Your task to perform on an android device: turn on priority inbox in the gmail app Image 0: 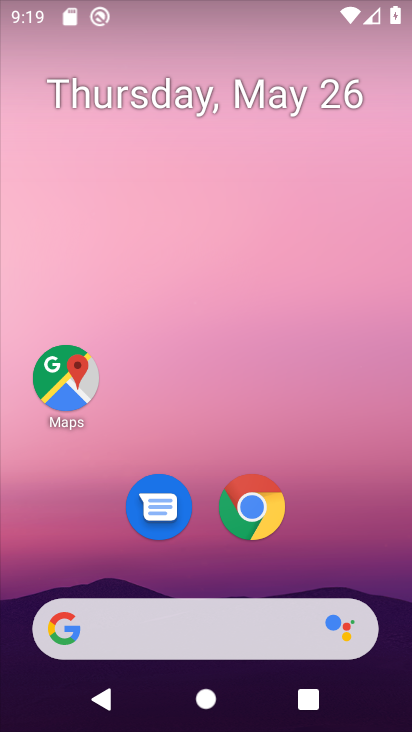
Step 0: drag from (375, 573) to (366, 278)
Your task to perform on an android device: turn on priority inbox in the gmail app Image 1: 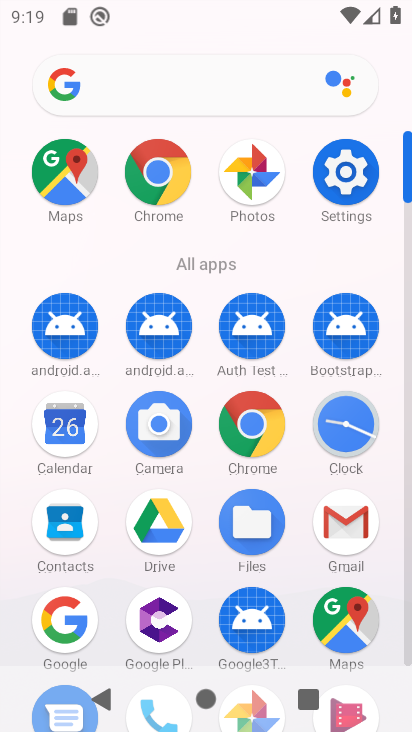
Step 1: click (346, 525)
Your task to perform on an android device: turn on priority inbox in the gmail app Image 2: 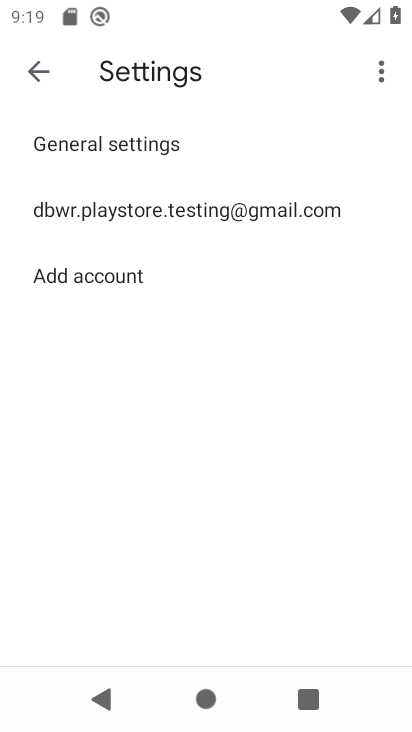
Step 2: click (35, 83)
Your task to perform on an android device: turn on priority inbox in the gmail app Image 3: 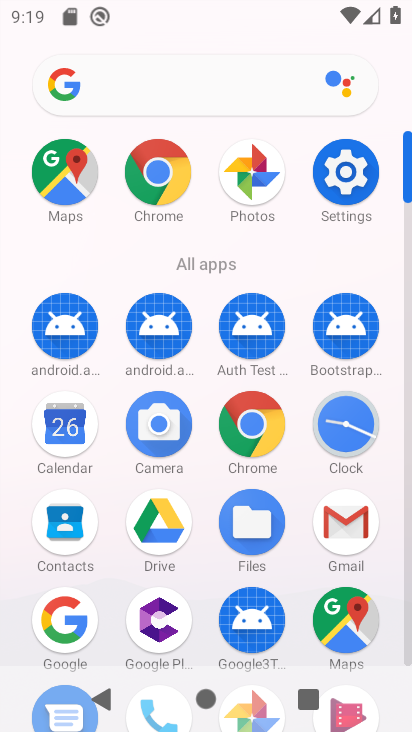
Step 3: click (363, 532)
Your task to perform on an android device: turn on priority inbox in the gmail app Image 4: 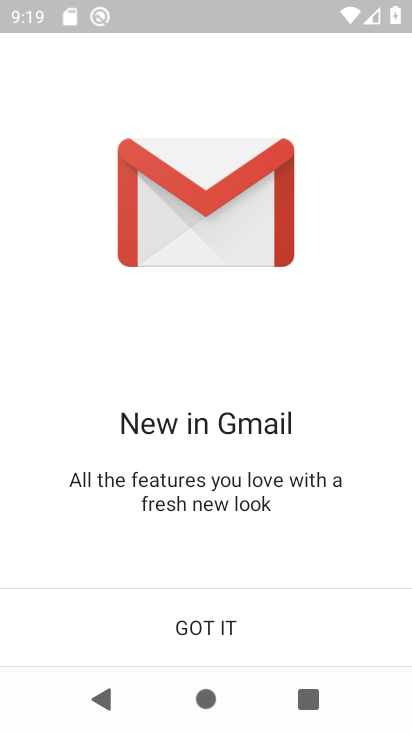
Step 4: click (343, 635)
Your task to perform on an android device: turn on priority inbox in the gmail app Image 5: 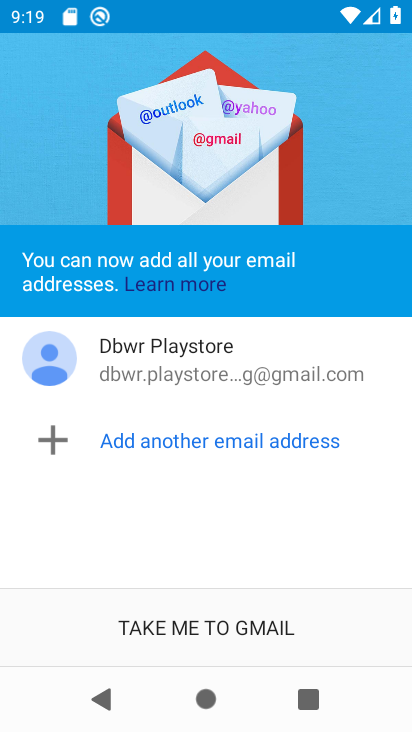
Step 5: click (334, 638)
Your task to perform on an android device: turn on priority inbox in the gmail app Image 6: 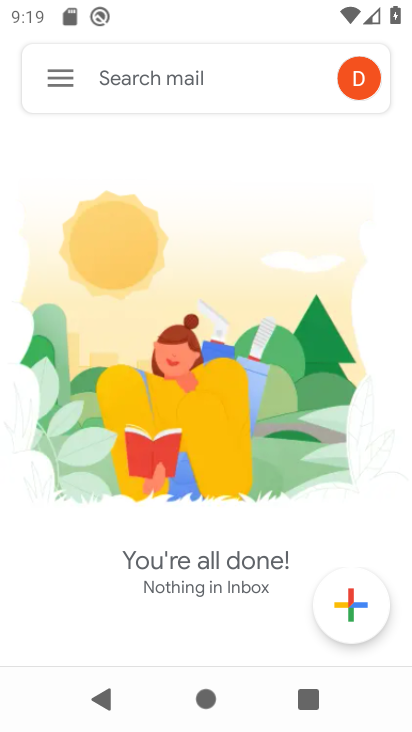
Step 6: click (67, 83)
Your task to perform on an android device: turn on priority inbox in the gmail app Image 7: 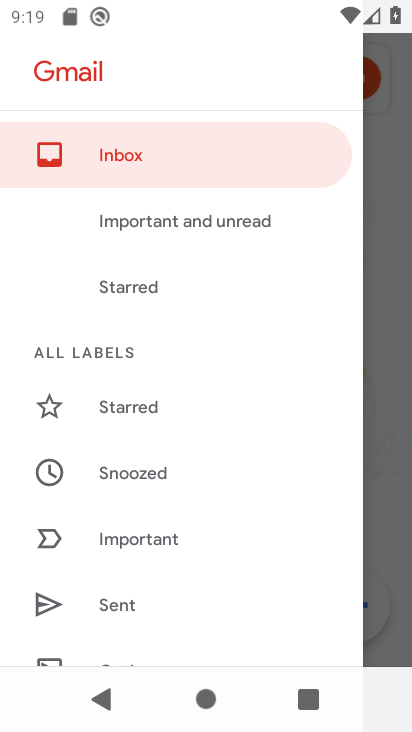
Step 7: drag from (211, 398) to (233, 277)
Your task to perform on an android device: turn on priority inbox in the gmail app Image 8: 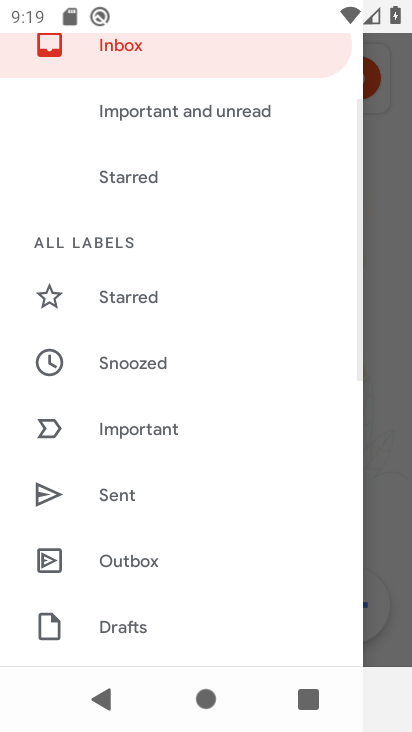
Step 8: drag from (275, 397) to (272, 254)
Your task to perform on an android device: turn on priority inbox in the gmail app Image 9: 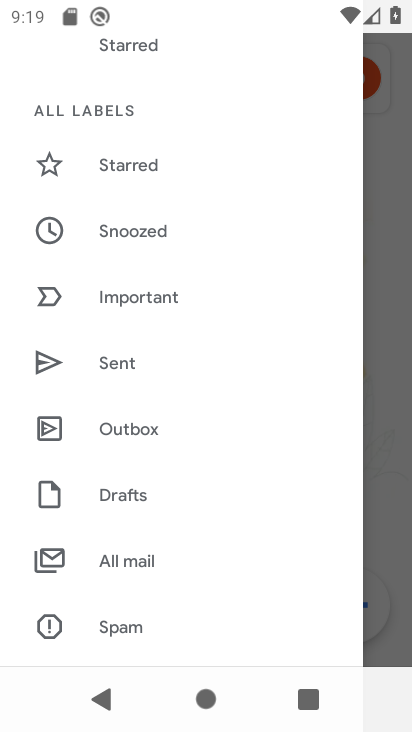
Step 9: drag from (279, 399) to (292, 273)
Your task to perform on an android device: turn on priority inbox in the gmail app Image 10: 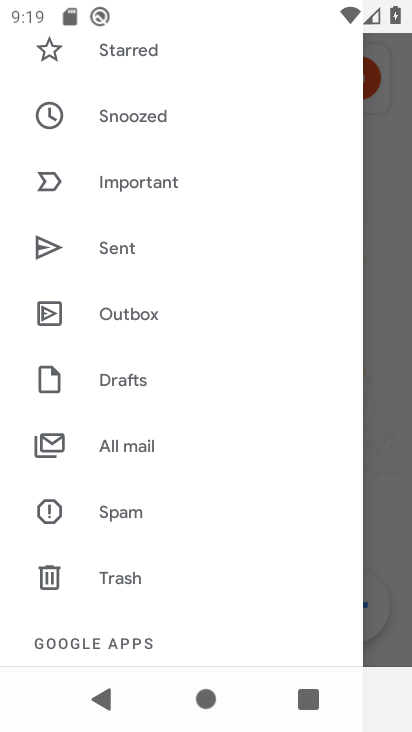
Step 10: drag from (295, 427) to (282, 240)
Your task to perform on an android device: turn on priority inbox in the gmail app Image 11: 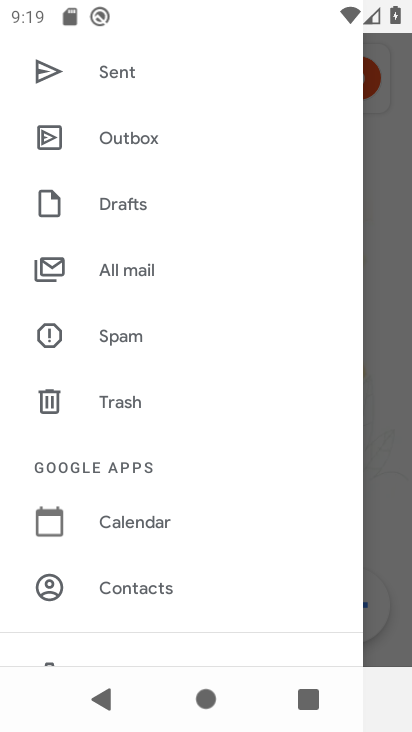
Step 11: drag from (259, 437) to (259, 260)
Your task to perform on an android device: turn on priority inbox in the gmail app Image 12: 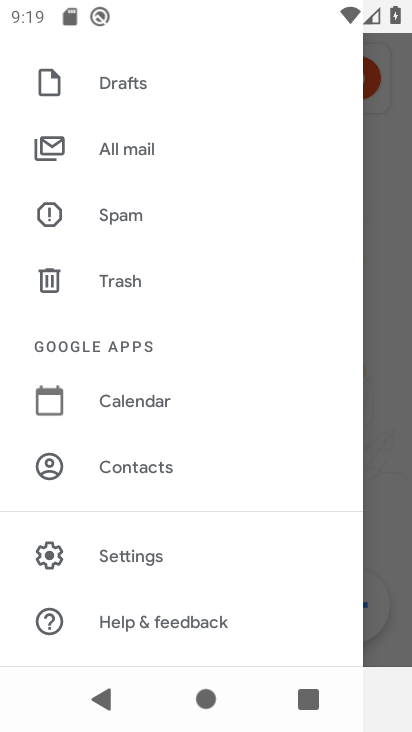
Step 12: click (174, 557)
Your task to perform on an android device: turn on priority inbox in the gmail app Image 13: 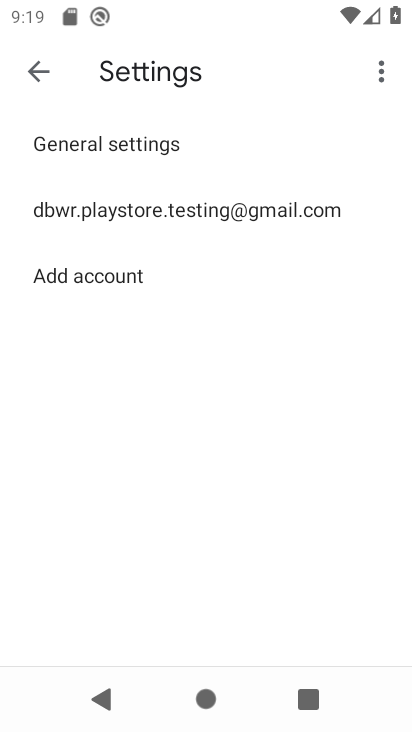
Step 13: click (267, 213)
Your task to perform on an android device: turn on priority inbox in the gmail app Image 14: 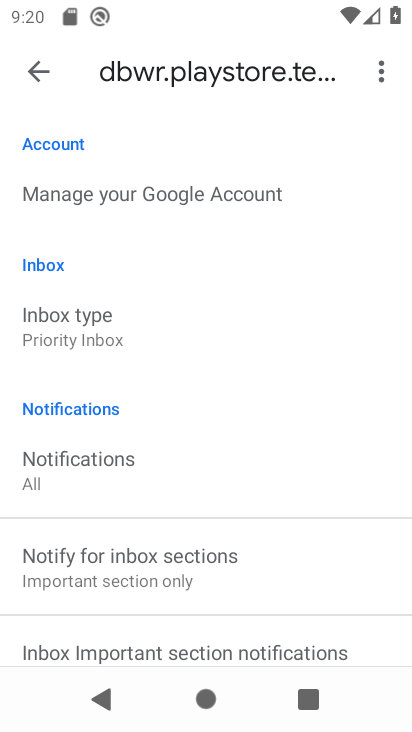
Step 14: task complete